Your task to perform on an android device: Open Yahoo.com Image 0: 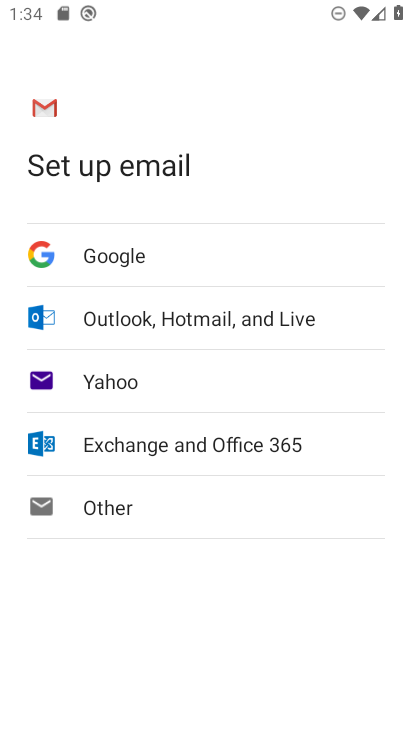
Step 0: press home button
Your task to perform on an android device: Open Yahoo.com Image 1: 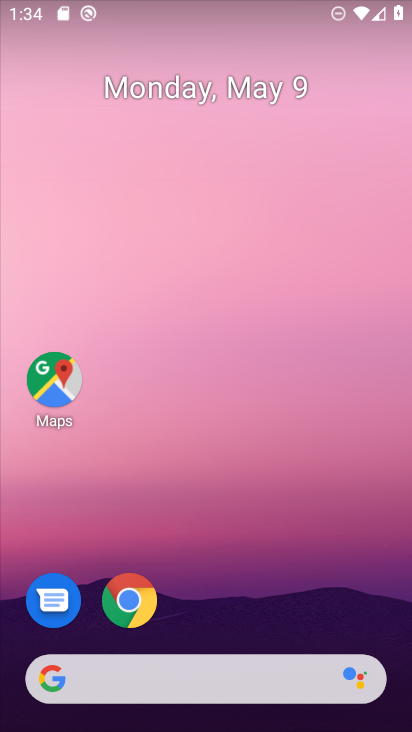
Step 1: drag from (205, 671) to (317, 135)
Your task to perform on an android device: Open Yahoo.com Image 2: 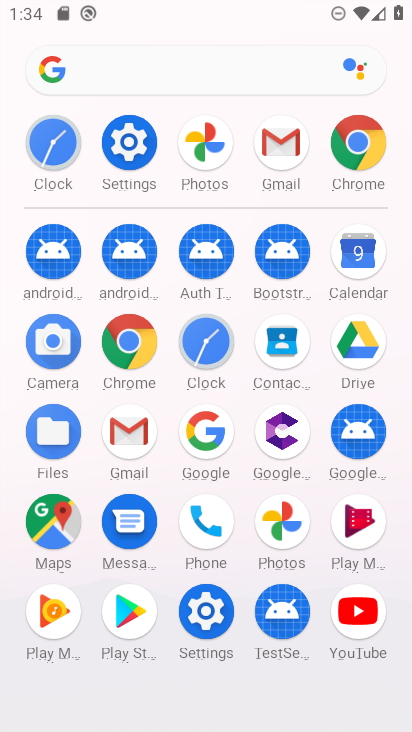
Step 2: click (365, 152)
Your task to perform on an android device: Open Yahoo.com Image 3: 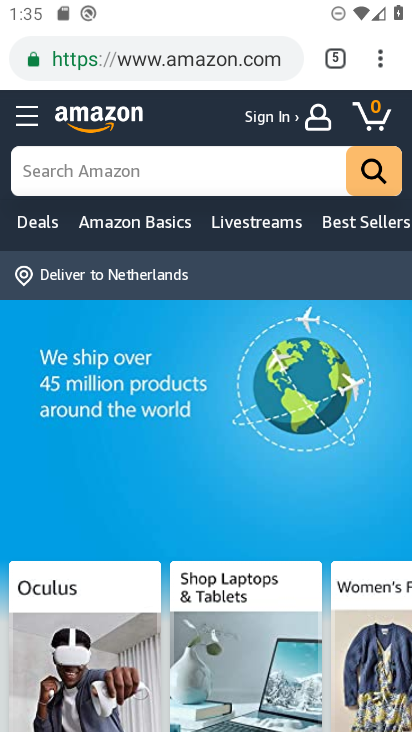
Step 3: drag from (383, 64) to (199, 106)
Your task to perform on an android device: Open Yahoo.com Image 4: 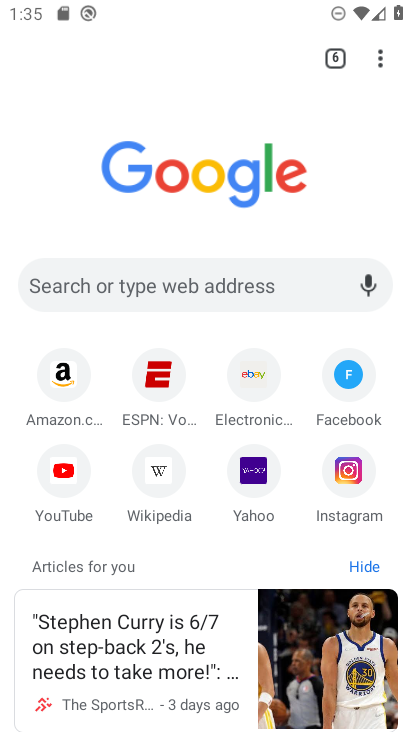
Step 4: click (257, 480)
Your task to perform on an android device: Open Yahoo.com Image 5: 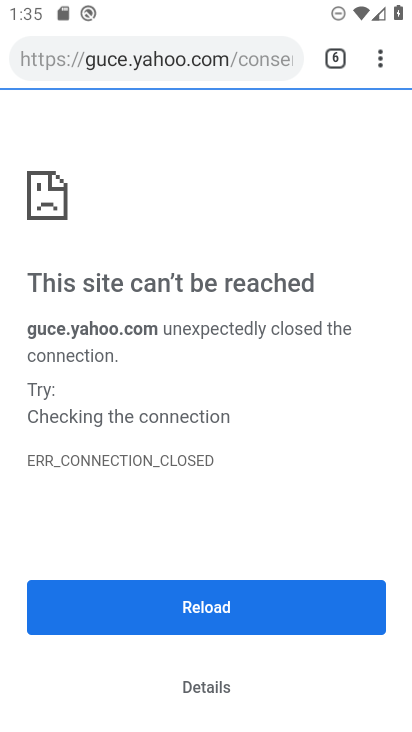
Step 5: click (206, 607)
Your task to perform on an android device: Open Yahoo.com Image 6: 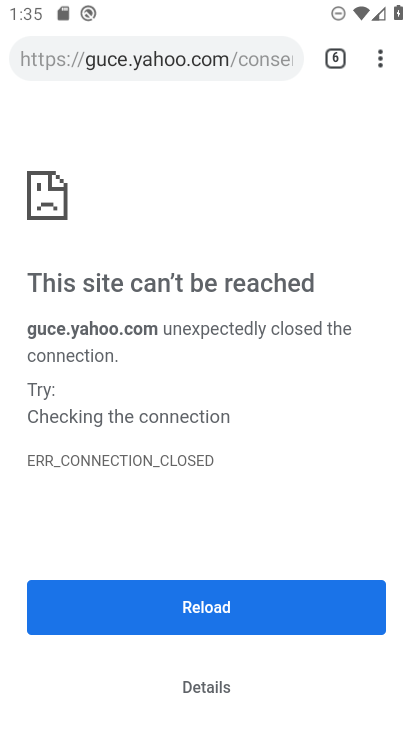
Step 6: press back button
Your task to perform on an android device: Open Yahoo.com Image 7: 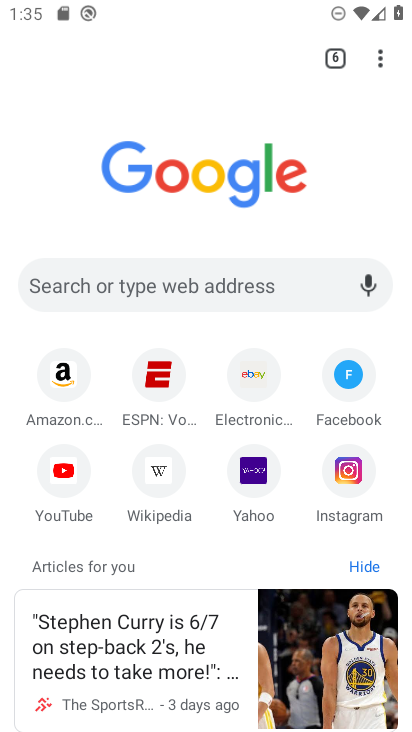
Step 7: click (252, 515)
Your task to perform on an android device: Open Yahoo.com Image 8: 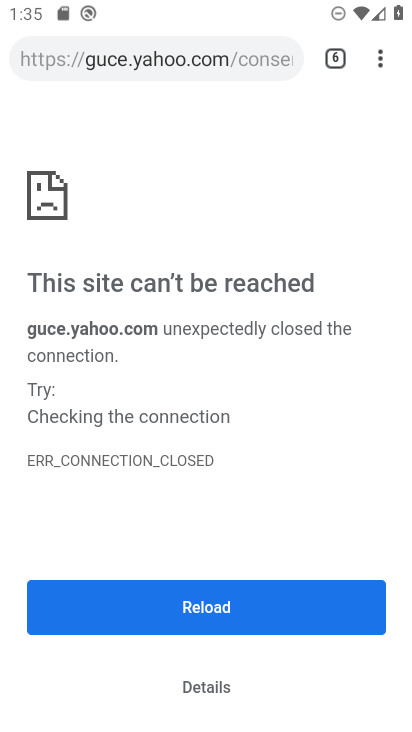
Step 8: task complete